Your task to perform on an android device: open chrome privacy settings Image 0: 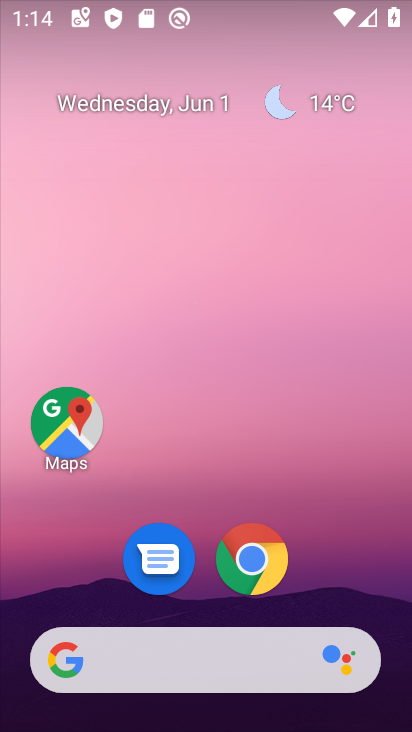
Step 0: click (248, 557)
Your task to perform on an android device: open chrome privacy settings Image 1: 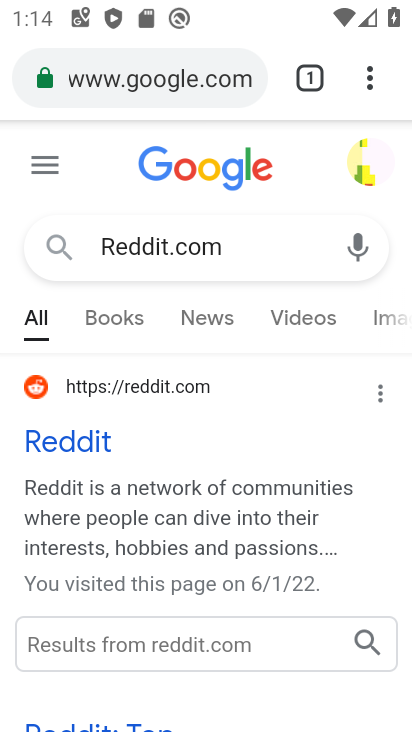
Step 1: click (371, 71)
Your task to perform on an android device: open chrome privacy settings Image 2: 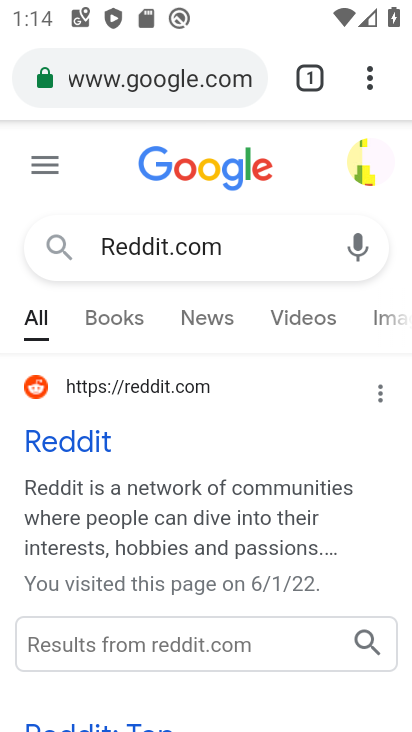
Step 2: click (373, 80)
Your task to perform on an android device: open chrome privacy settings Image 3: 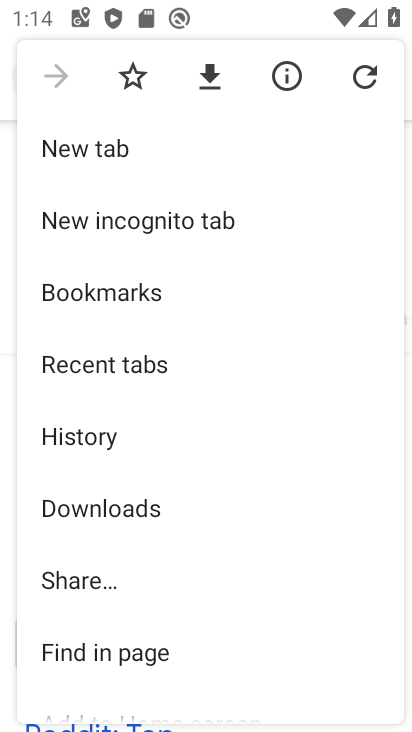
Step 3: drag from (256, 674) to (247, 465)
Your task to perform on an android device: open chrome privacy settings Image 4: 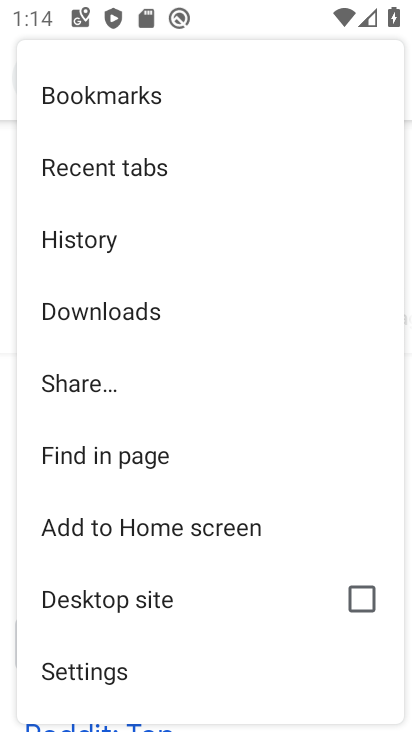
Step 4: click (75, 675)
Your task to perform on an android device: open chrome privacy settings Image 5: 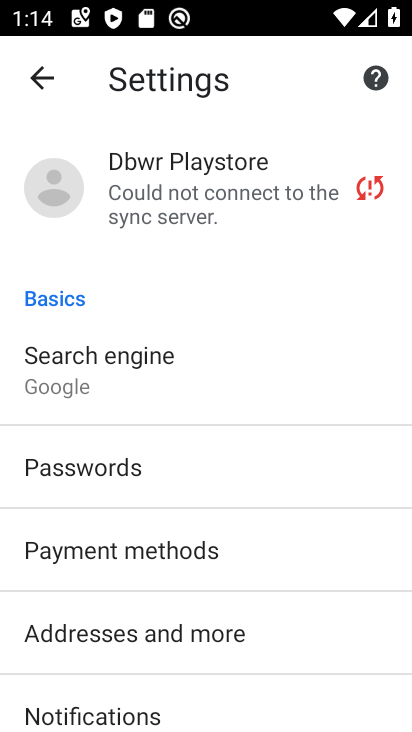
Step 5: drag from (308, 693) to (277, 428)
Your task to perform on an android device: open chrome privacy settings Image 6: 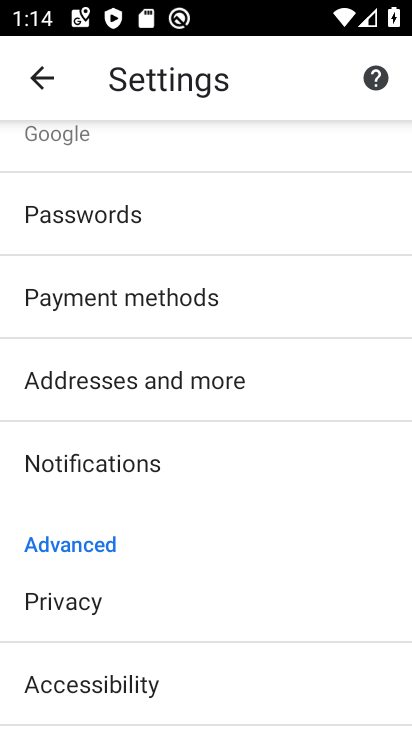
Step 6: click (37, 591)
Your task to perform on an android device: open chrome privacy settings Image 7: 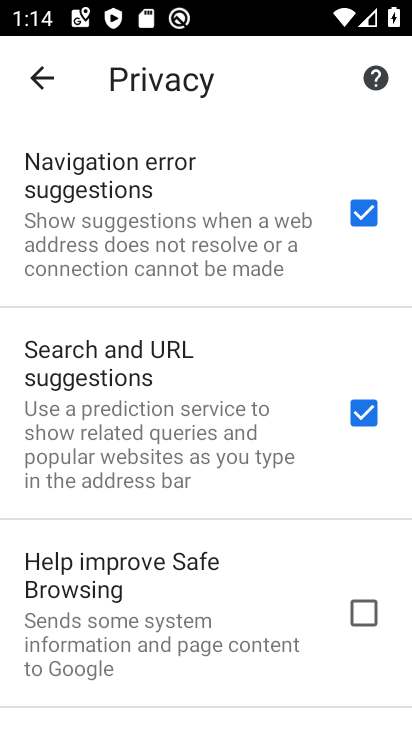
Step 7: task complete